Your task to perform on an android device: toggle data saver in the chrome app Image 0: 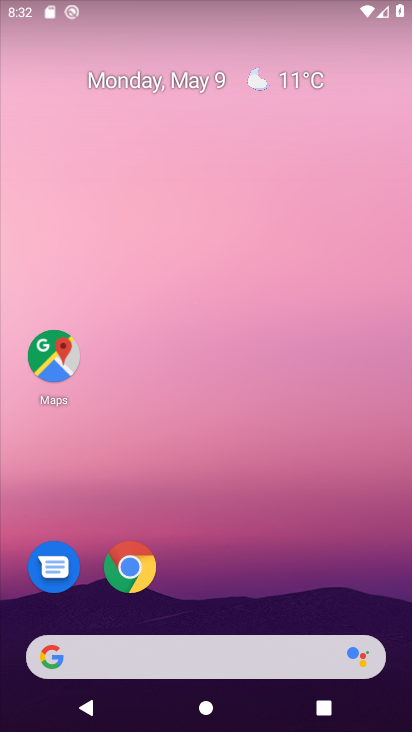
Step 0: drag from (280, 506) to (219, 68)
Your task to perform on an android device: toggle data saver in the chrome app Image 1: 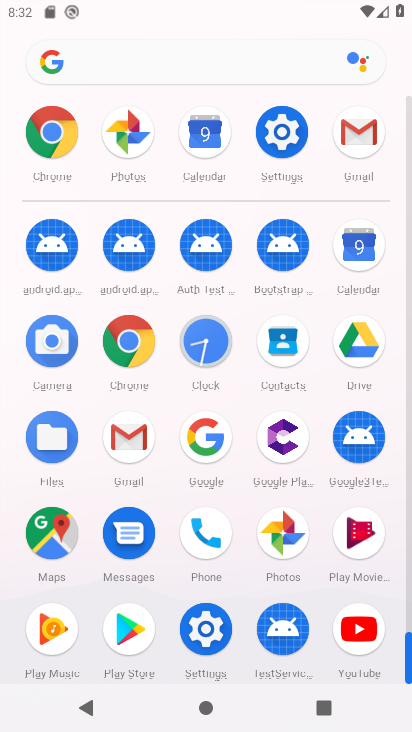
Step 1: click (53, 135)
Your task to perform on an android device: toggle data saver in the chrome app Image 2: 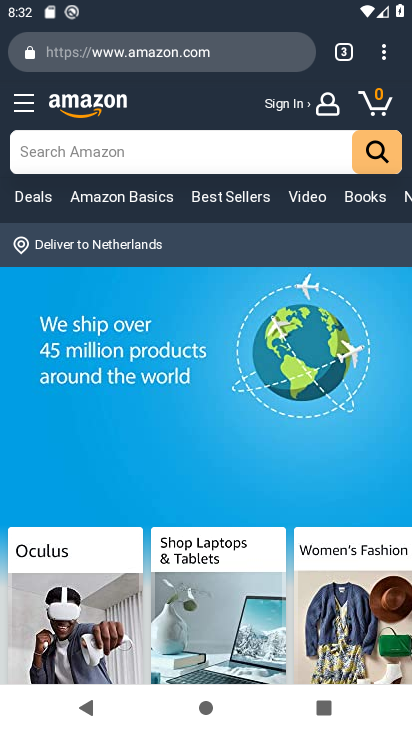
Step 2: click (383, 53)
Your task to perform on an android device: toggle data saver in the chrome app Image 3: 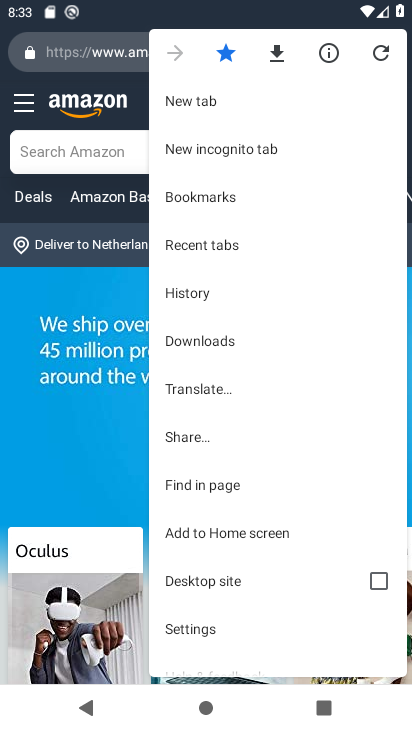
Step 3: click (238, 624)
Your task to perform on an android device: toggle data saver in the chrome app Image 4: 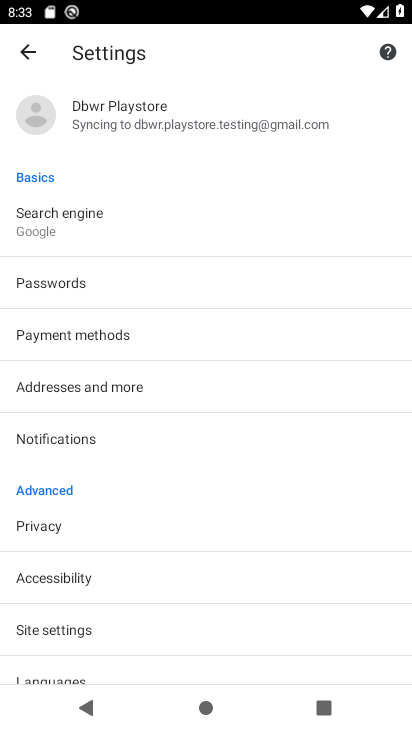
Step 4: drag from (129, 619) to (176, 336)
Your task to perform on an android device: toggle data saver in the chrome app Image 5: 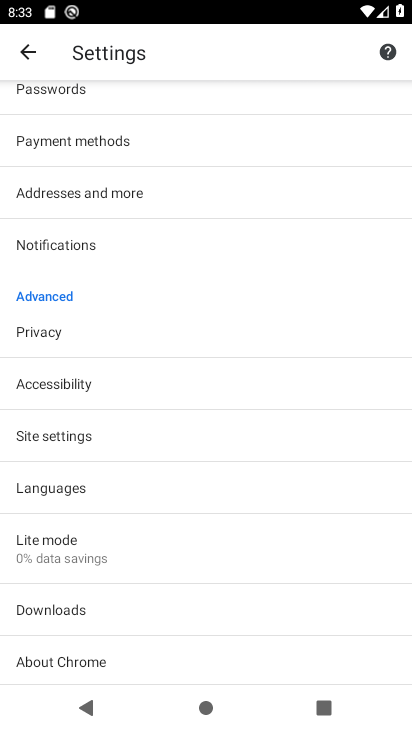
Step 5: click (82, 541)
Your task to perform on an android device: toggle data saver in the chrome app Image 6: 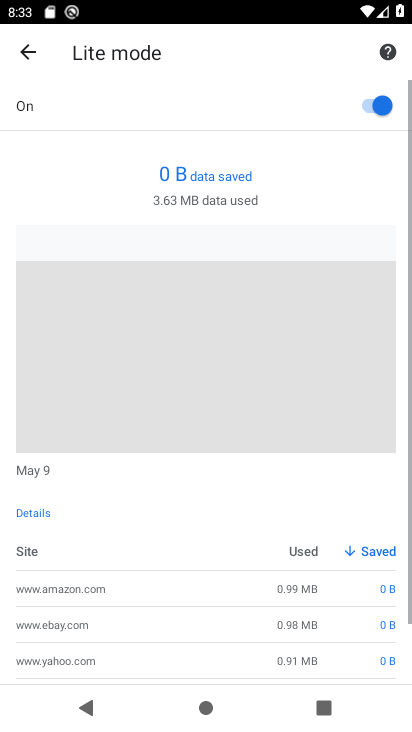
Step 6: click (370, 96)
Your task to perform on an android device: toggle data saver in the chrome app Image 7: 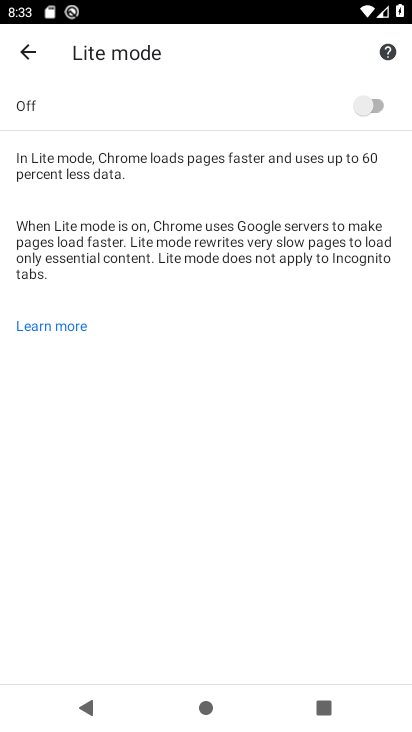
Step 7: task complete